Your task to perform on an android device: choose inbox layout in the gmail app Image 0: 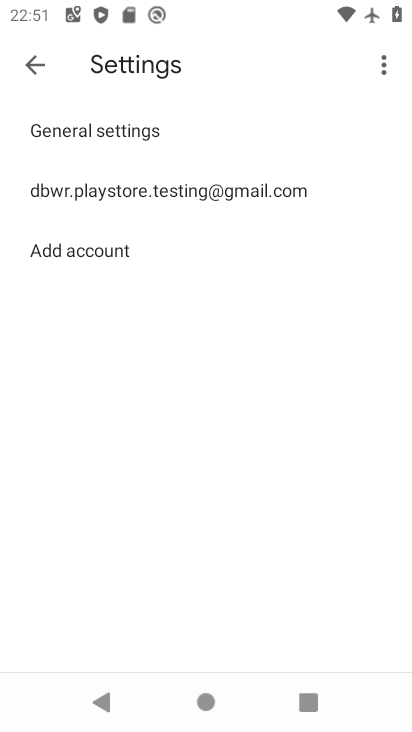
Step 0: click (38, 73)
Your task to perform on an android device: choose inbox layout in the gmail app Image 1: 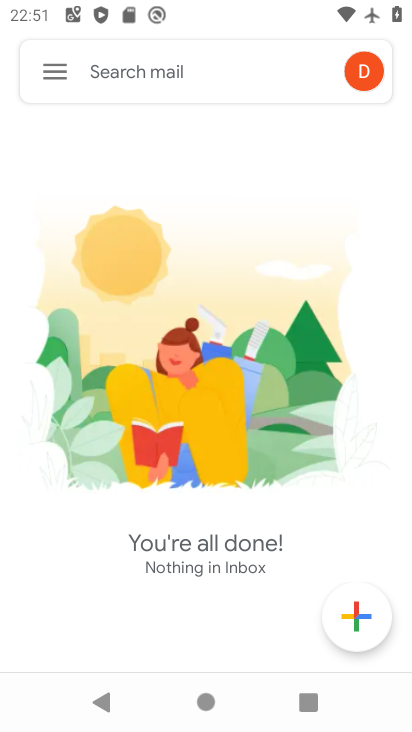
Step 1: click (38, 73)
Your task to perform on an android device: choose inbox layout in the gmail app Image 2: 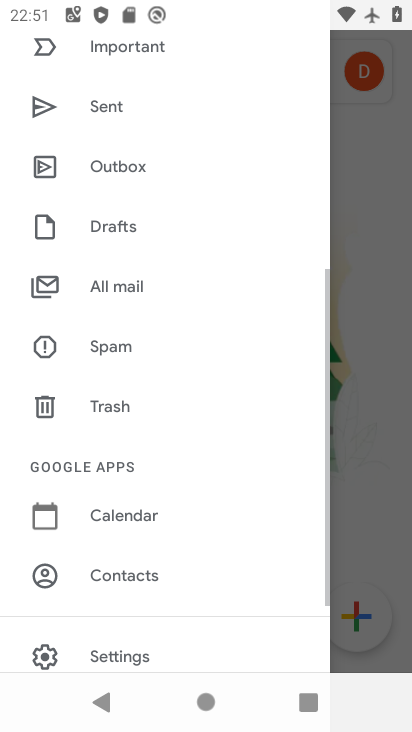
Step 2: drag from (111, 192) to (134, 429)
Your task to perform on an android device: choose inbox layout in the gmail app Image 3: 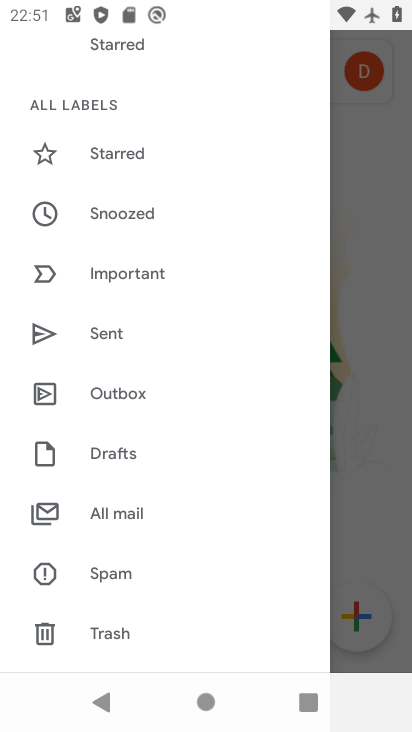
Step 3: drag from (169, 134) to (182, 395)
Your task to perform on an android device: choose inbox layout in the gmail app Image 4: 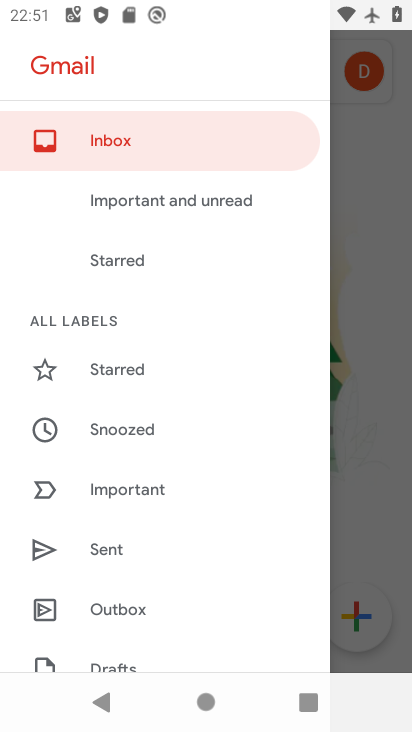
Step 4: click (185, 153)
Your task to perform on an android device: choose inbox layout in the gmail app Image 5: 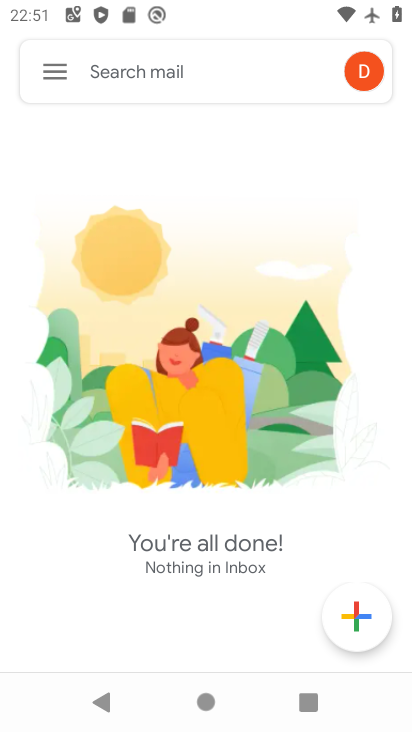
Step 5: task complete